Your task to perform on an android device: change text size in settings app Image 0: 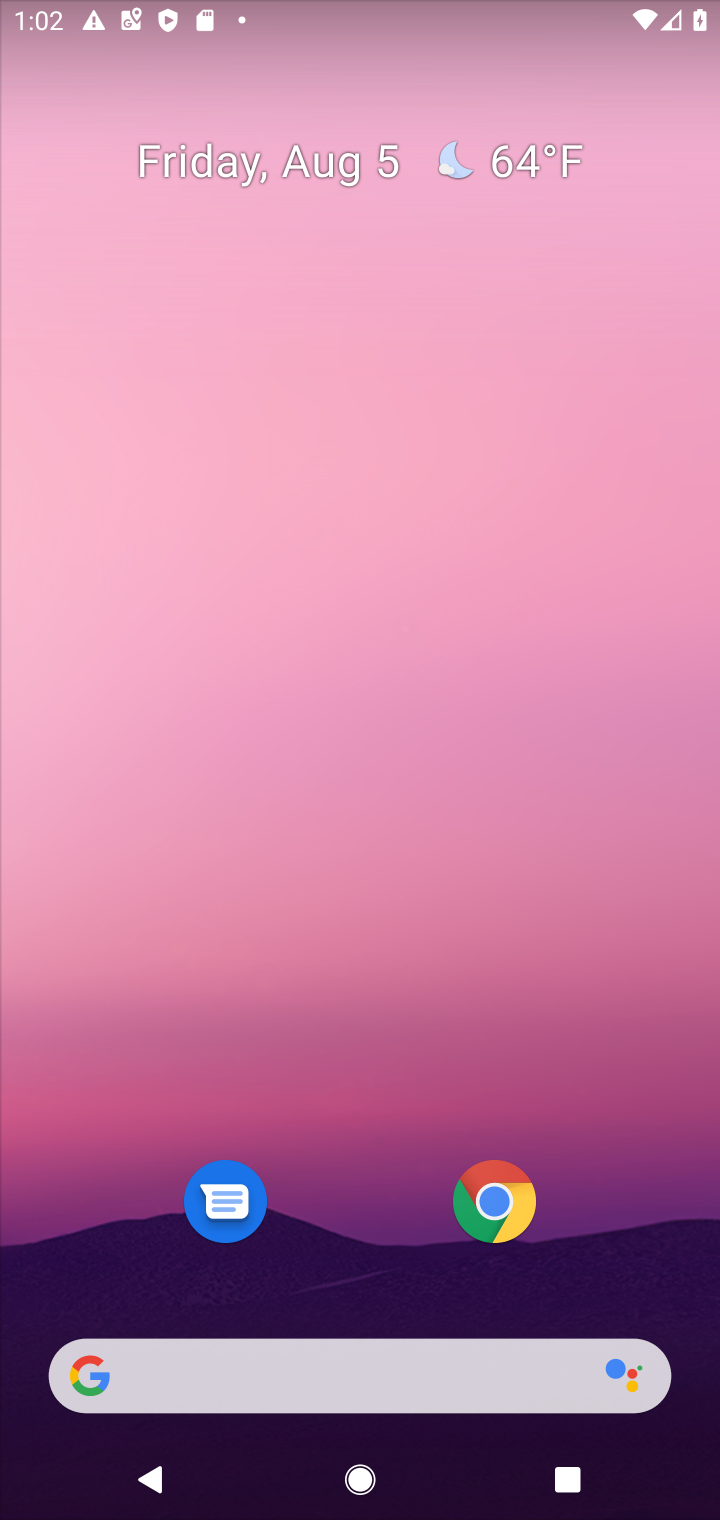
Step 0: drag from (604, 1270) to (546, 492)
Your task to perform on an android device: change text size in settings app Image 1: 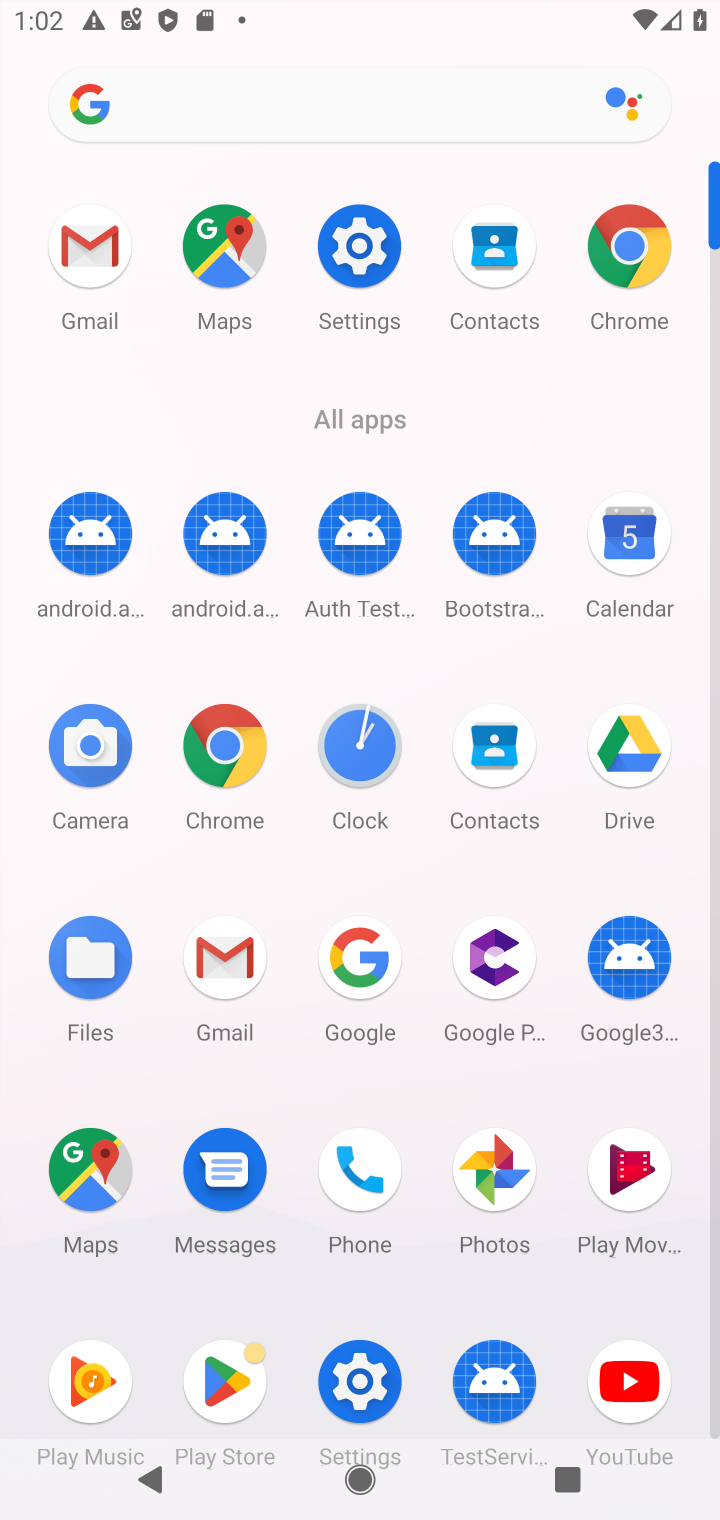
Step 1: click (372, 1369)
Your task to perform on an android device: change text size in settings app Image 2: 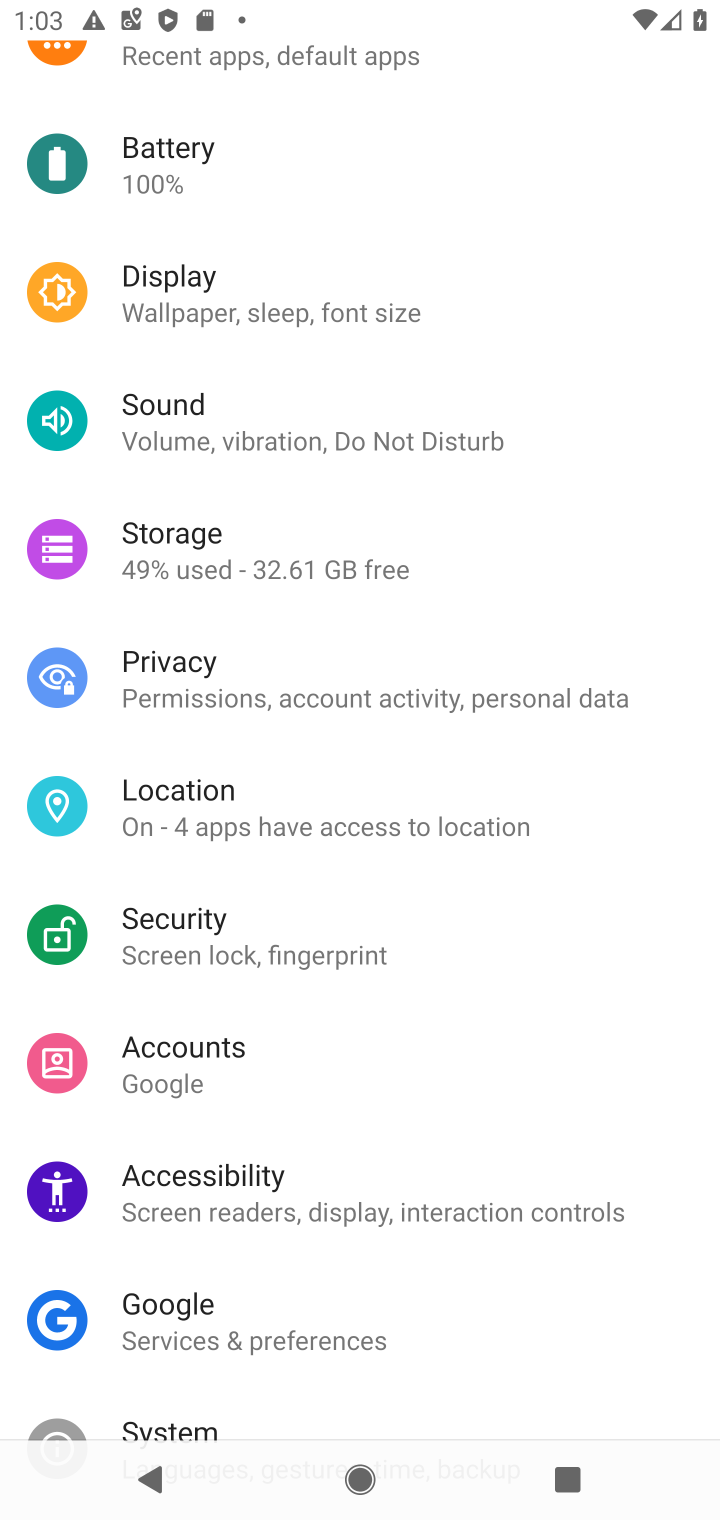
Step 2: click (170, 285)
Your task to perform on an android device: change text size in settings app Image 3: 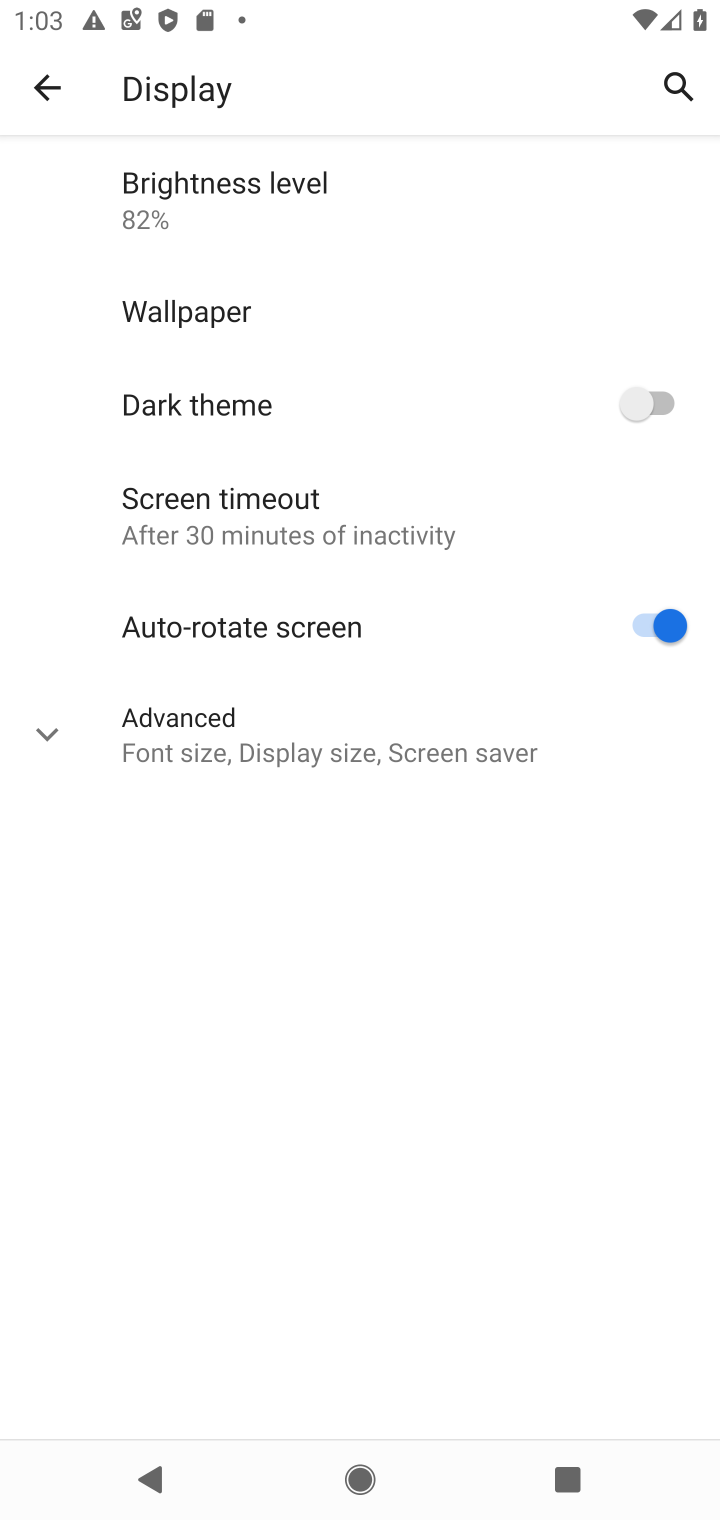
Step 3: click (302, 715)
Your task to perform on an android device: change text size in settings app Image 4: 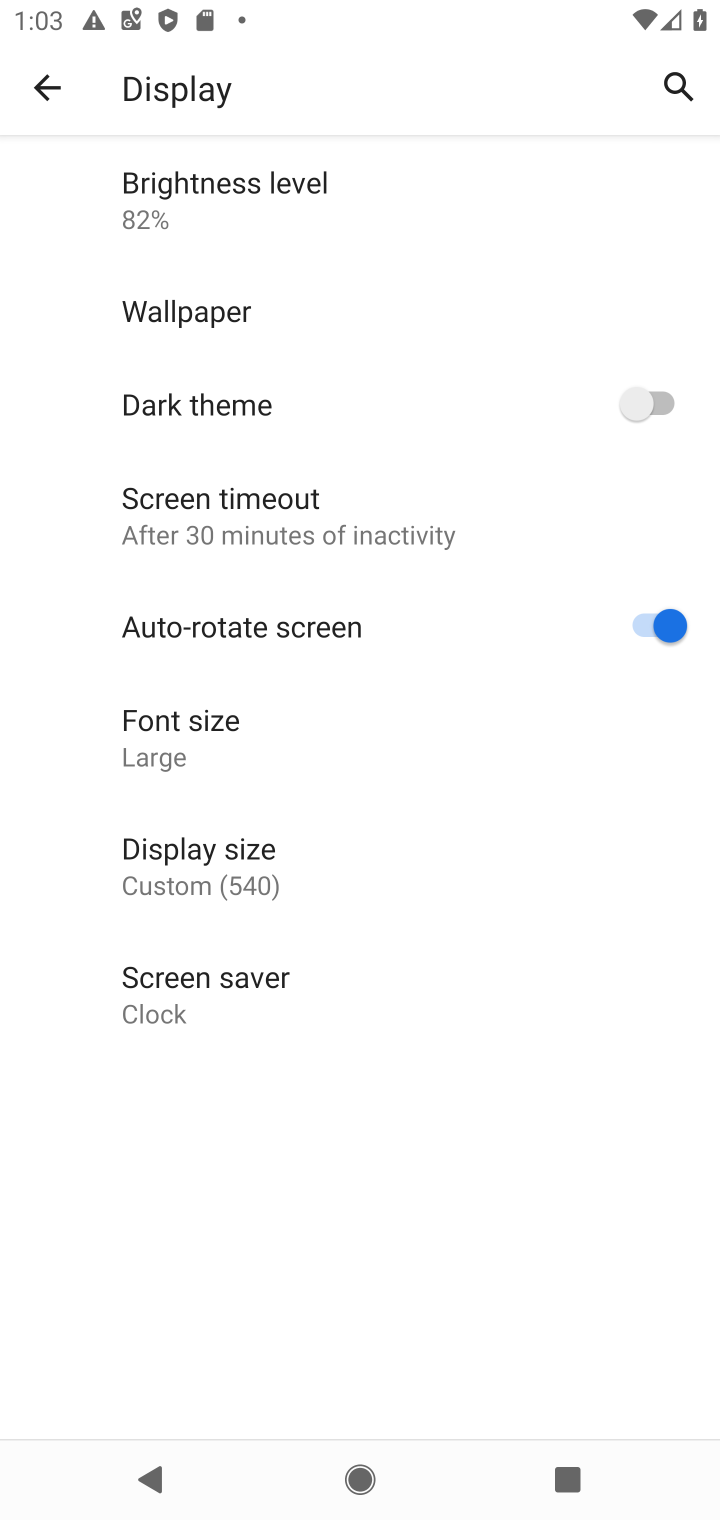
Step 4: click (191, 747)
Your task to perform on an android device: change text size in settings app Image 5: 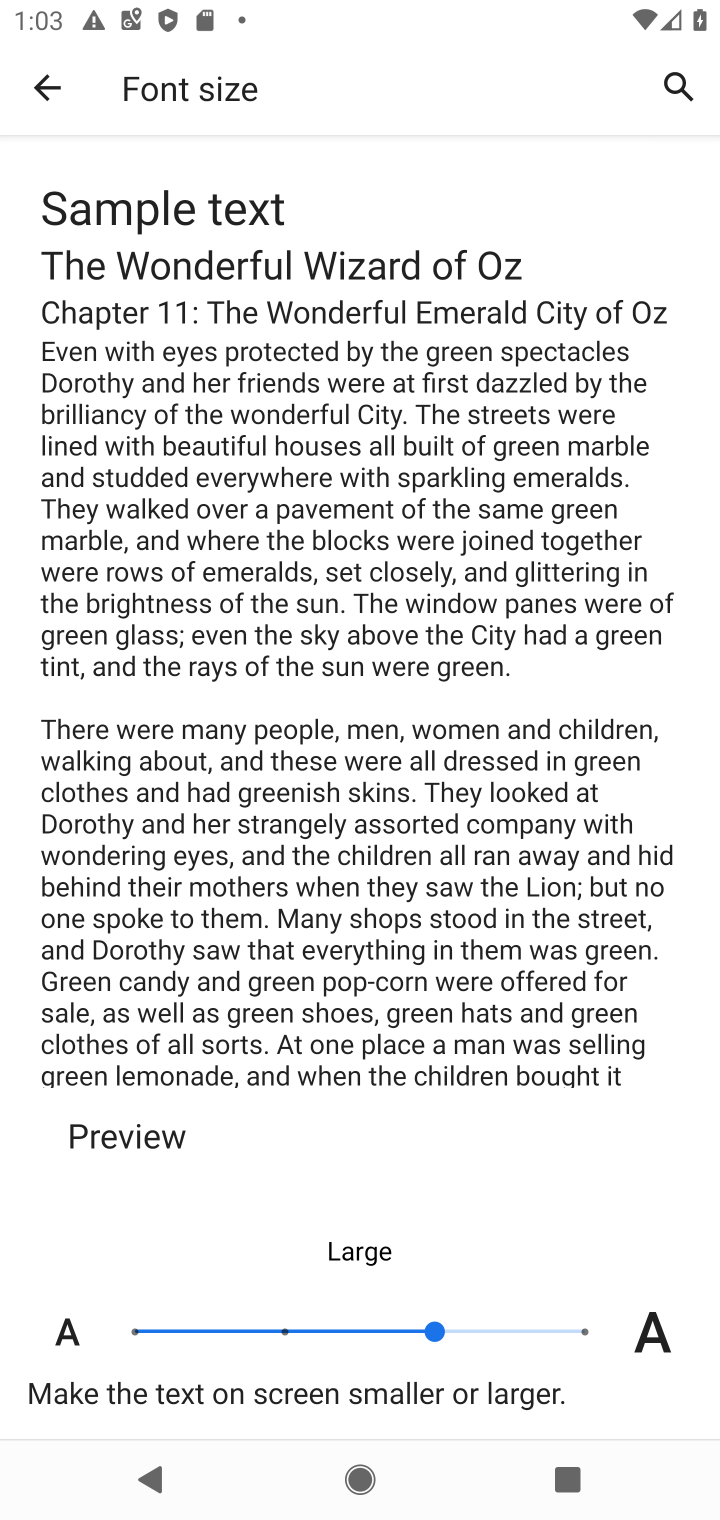
Step 5: task complete